Your task to perform on an android device: turn on javascript in the chrome app Image 0: 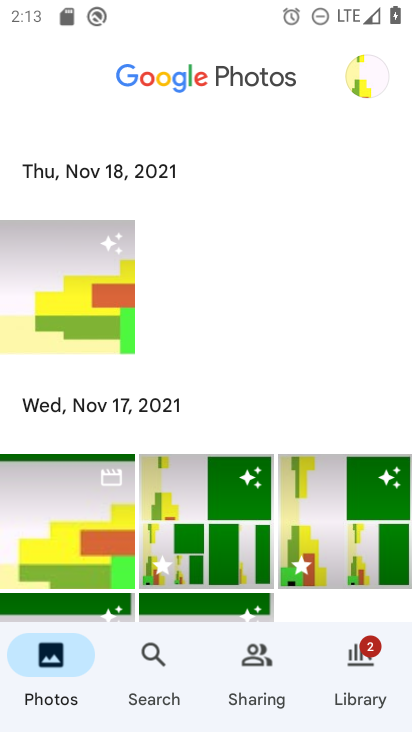
Step 0: press home button
Your task to perform on an android device: turn on javascript in the chrome app Image 1: 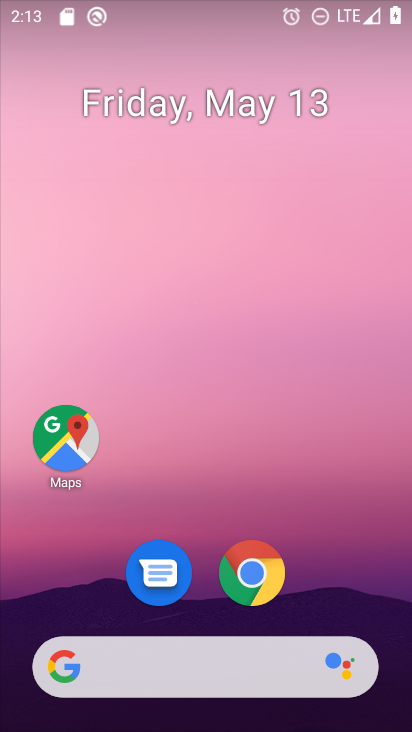
Step 1: click (274, 579)
Your task to perform on an android device: turn on javascript in the chrome app Image 2: 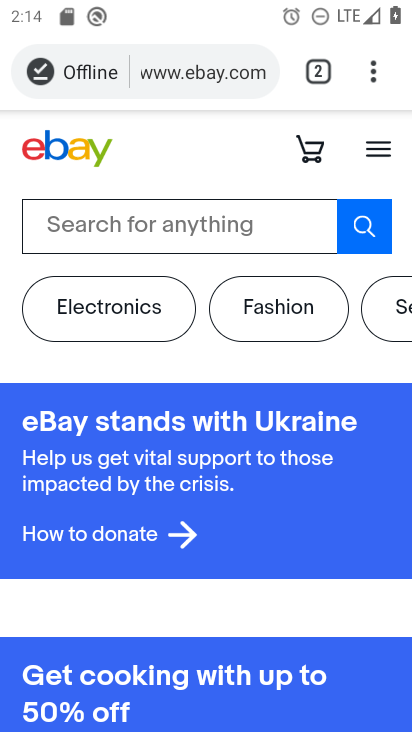
Step 2: click (372, 65)
Your task to perform on an android device: turn on javascript in the chrome app Image 3: 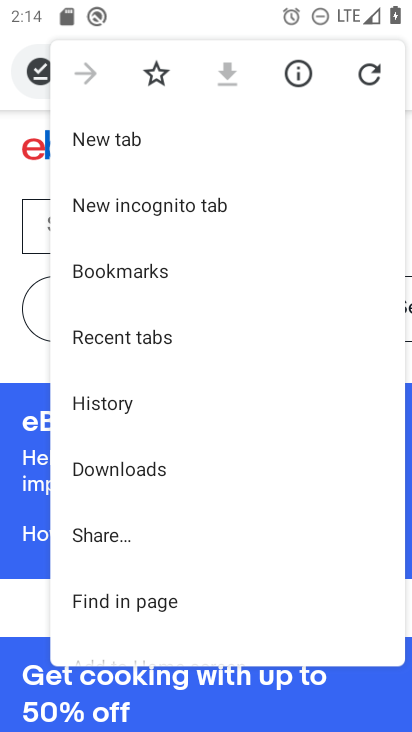
Step 3: drag from (243, 599) to (179, 217)
Your task to perform on an android device: turn on javascript in the chrome app Image 4: 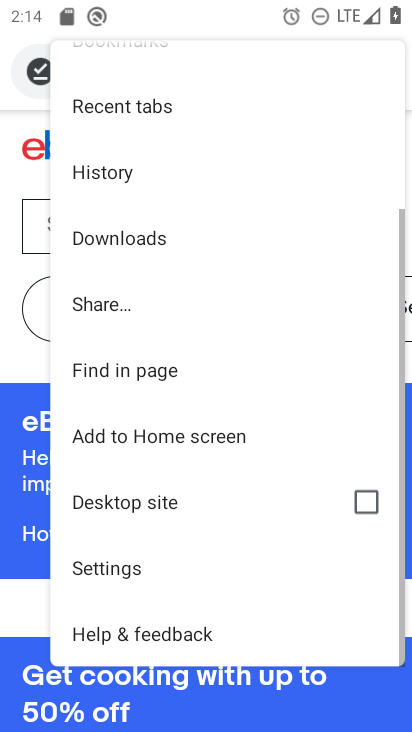
Step 4: click (106, 574)
Your task to perform on an android device: turn on javascript in the chrome app Image 5: 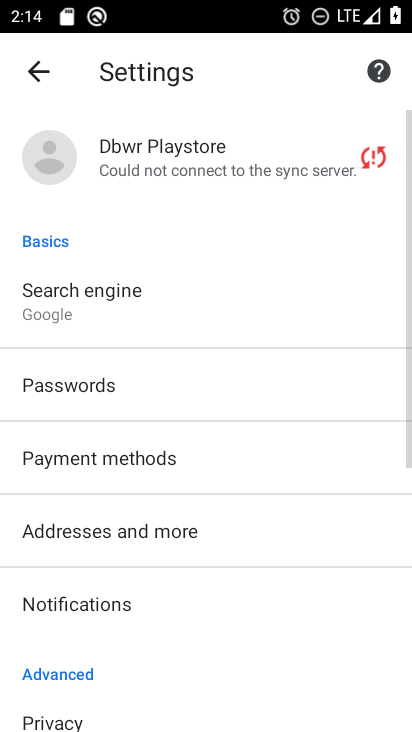
Step 5: drag from (267, 668) to (244, 247)
Your task to perform on an android device: turn on javascript in the chrome app Image 6: 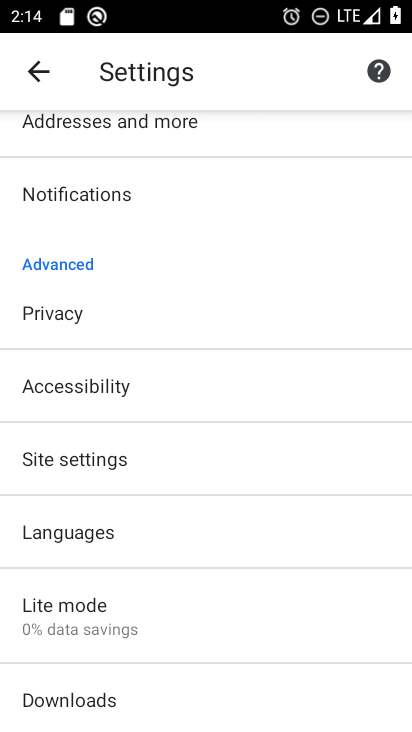
Step 6: click (124, 454)
Your task to perform on an android device: turn on javascript in the chrome app Image 7: 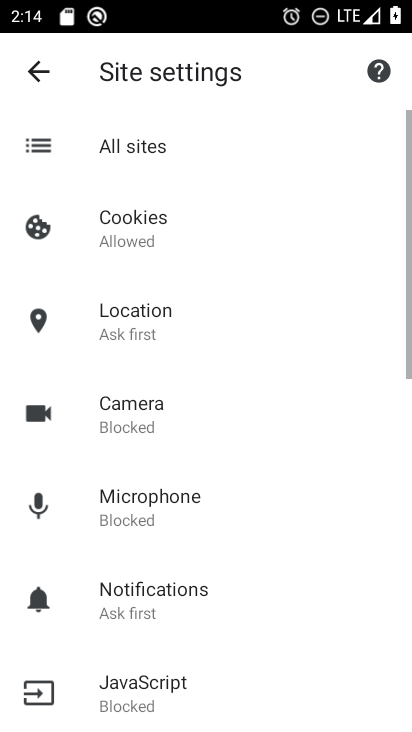
Step 7: drag from (262, 651) to (259, 244)
Your task to perform on an android device: turn on javascript in the chrome app Image 8: 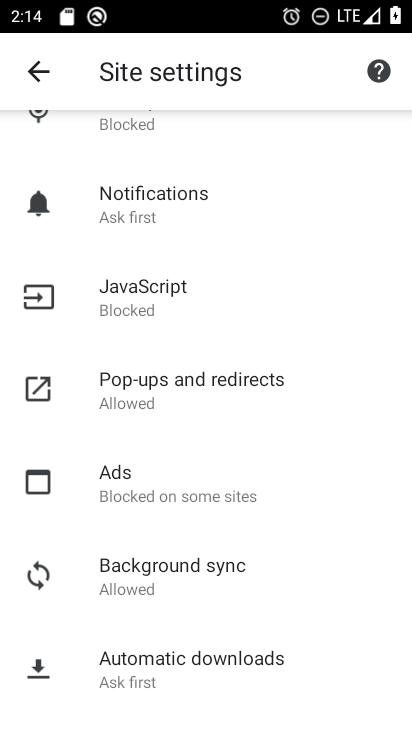
Step 8: click (138, 302)
Your task to perform on an android device: turn on javascript in the chrome app Image 9: 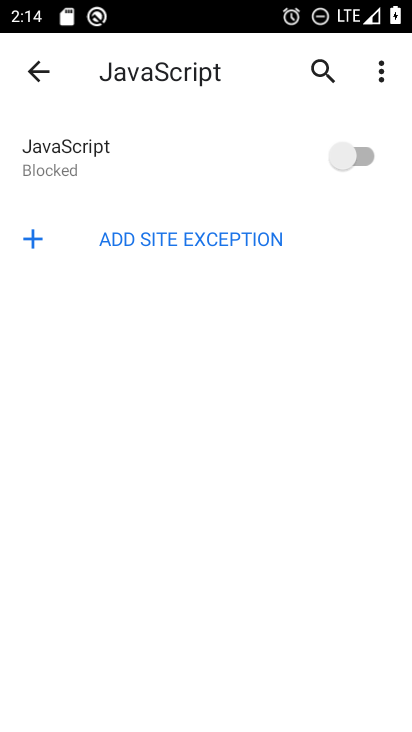
Step 9: click (358, 155)
Your task to perform on an android device: turn on javascript in the chrome app Image 10: 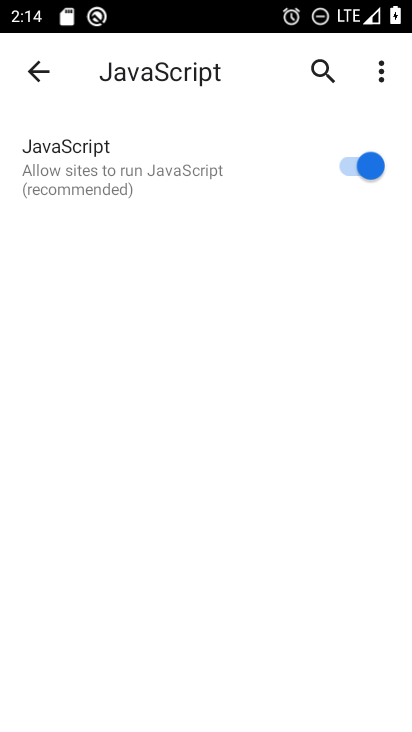
Step 10: task complete